Your task to perform on an android device: Open the calendar and show me this week's events? Image 0: 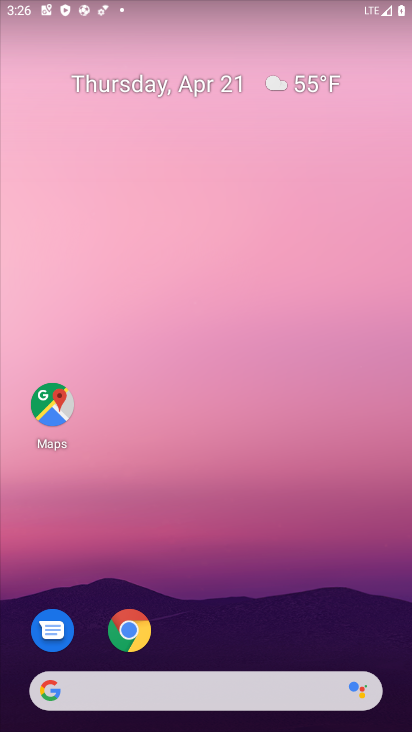
Step 0: drag from (242, 582) to (271, 221)
Your task to perform on an android device: Open the calendar and show me this week's events? Image 1: 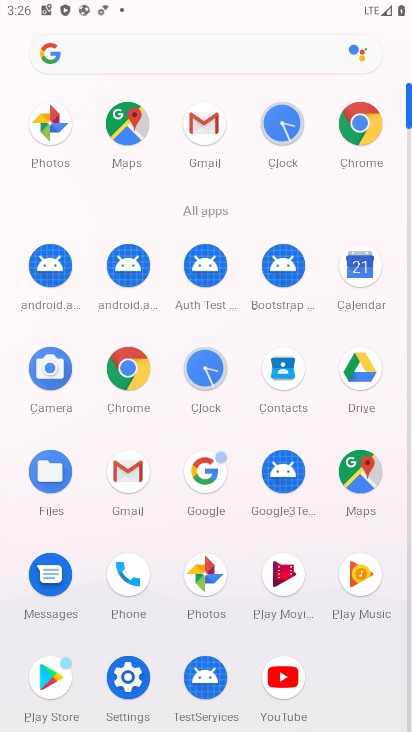
Step 1: click (365, 277)
Your task to perform on an android device: Open the calendar and show me this week's events? Image 2: 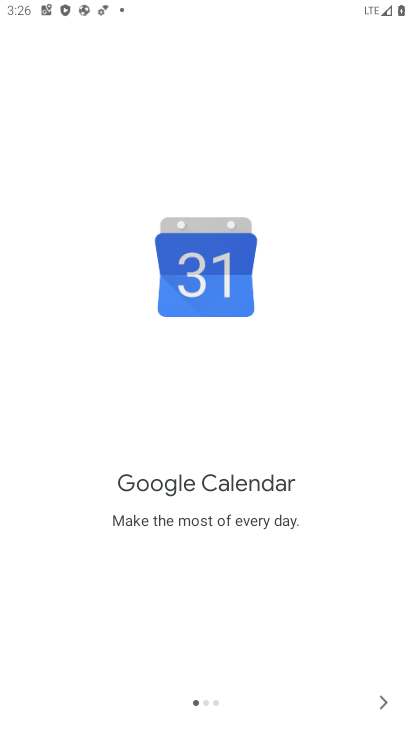
Step 2: click (378, 691)
Your task to perform on an android device: Open the calendar and show me this week's events? Image 3: 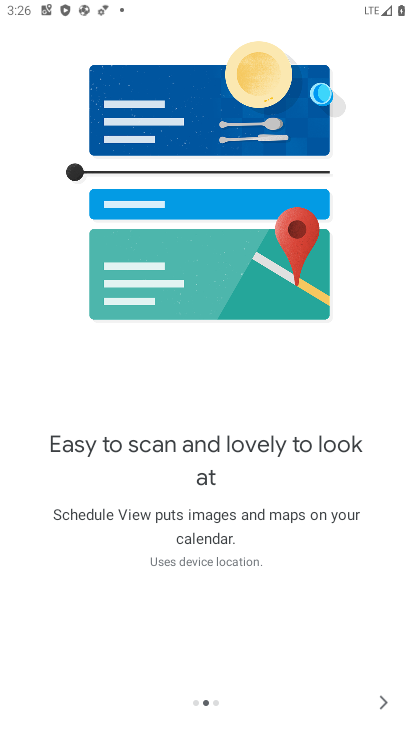
Step 3: click (387, 685)
Your task to perform on an android device: Open the calendar and show me this week's events? Image 4: 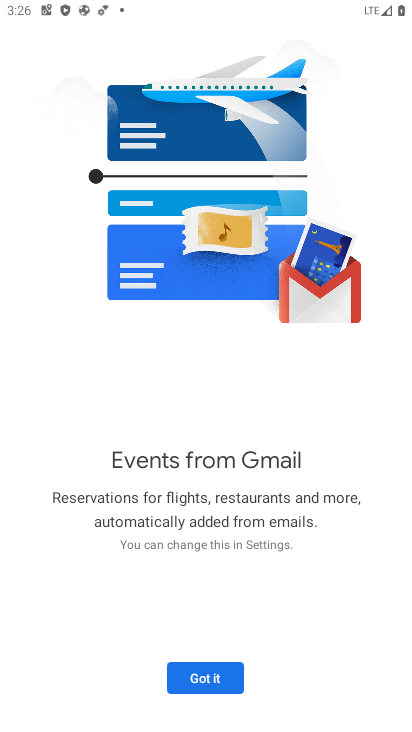
Step 4: click (212, 673)
Your task to perform on an android device: Open the calendar and show me this week's events? Image 5: 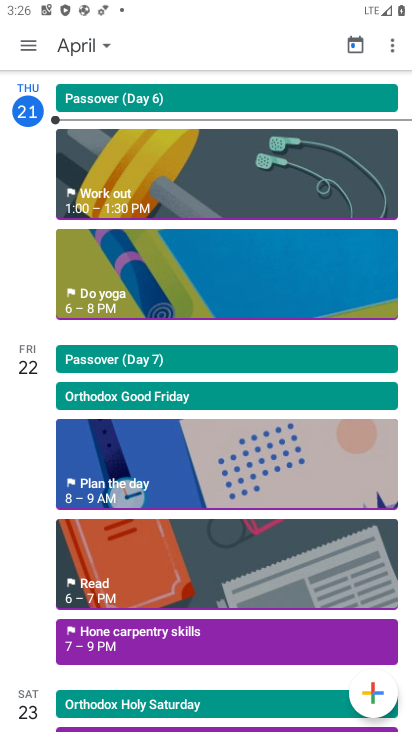
Step 5: click (90, 43)
Your task to perform on an android device: Open the calendar and show me this week's events? Image 6: 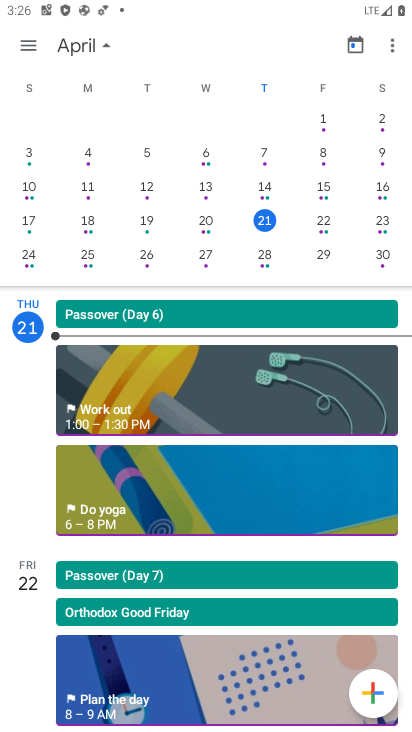
Step 6: task complete